Your task to perform on an android device: See recent photos Image 0: 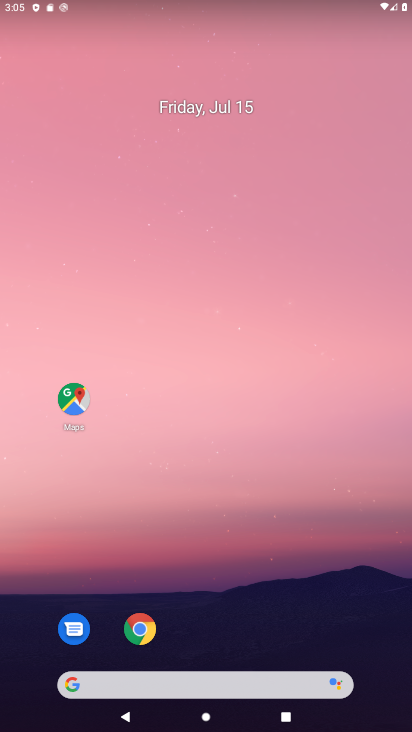
Step 0: drag from (392, 725) to (364, 142)
Your task to perform on an android device: See recent photos Image 1: 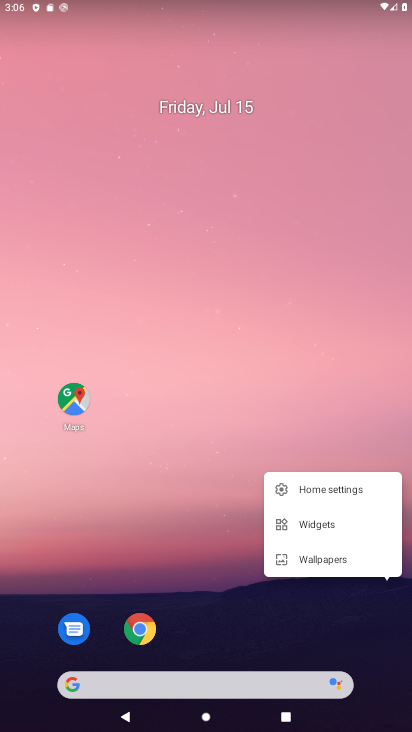
Step 1: click (364, 634)
Your task to perform on an android device: See recent photos Image 2: 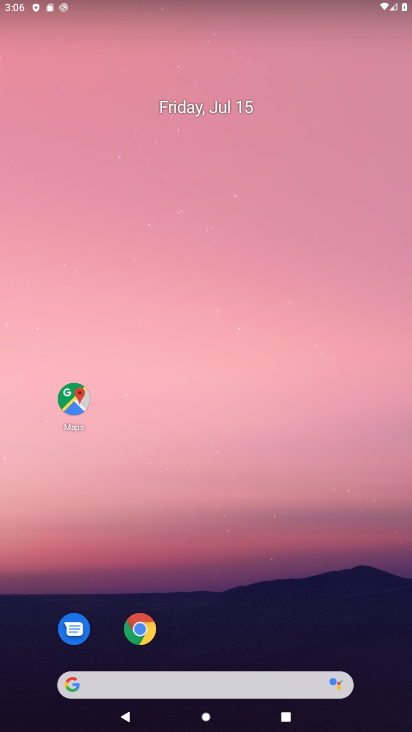
Step 2: drag from (382, 681) to (324, 105)
Your task to perform on an android device: See recent photos Image 3: 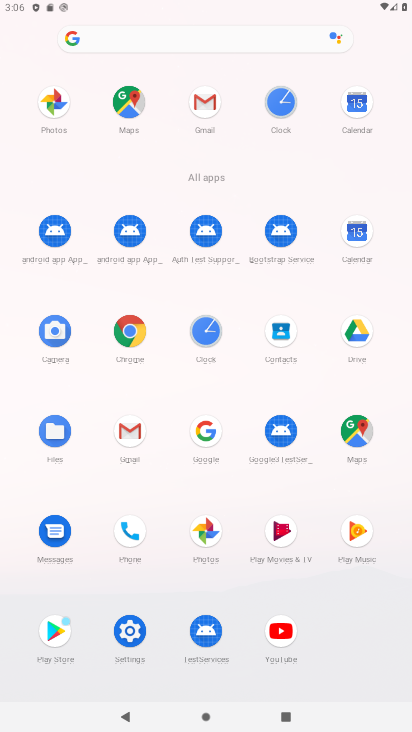
Step 3: click (210, 531)
Your task to perform on an android device: See recent photos Image 4: 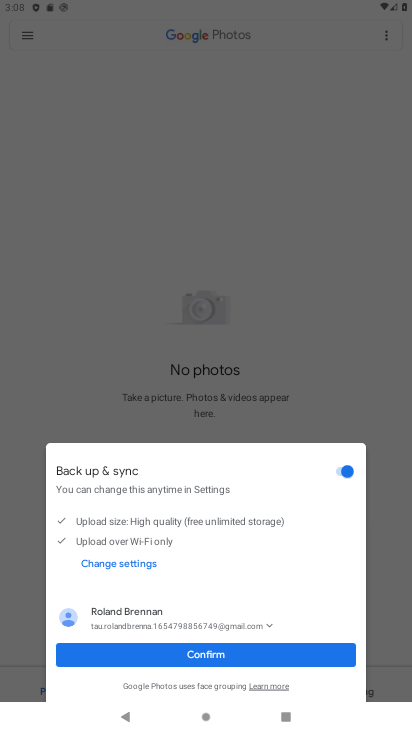
Step 4: task complete